Your task to perform on an android device: Open the Play Movies app and select the watchlist tab. Image 0: 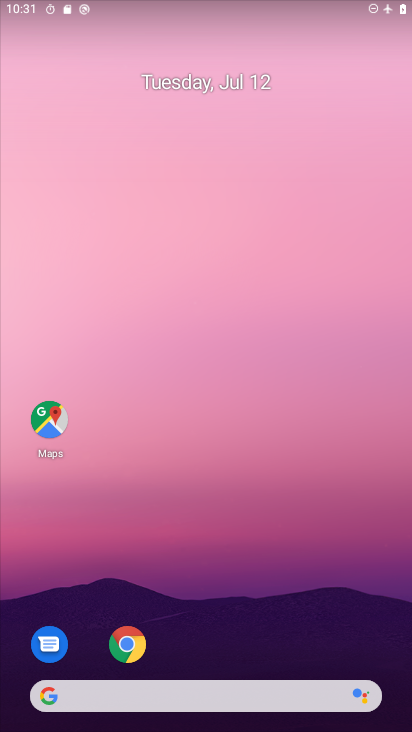
Step 0: drag from (183, 639) to (183, 230)
Your task to perform on an android device: Open the Play Movies app and select the watchlist tab. Image 1: 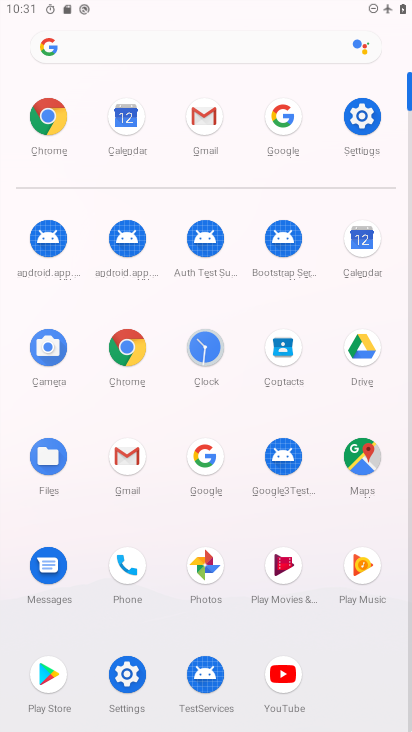
Step 1: click (284, 555)
Your task to perform on an android device: Open the Play Movies app and select the watchlist tab. Image 2: 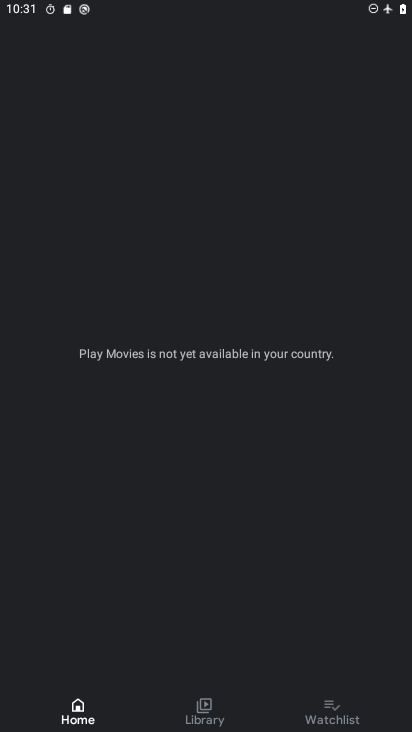
Step 2: click (310, 701)
Your task to perform on an android device: Open the Play Movies app and select the watchlist tab. Image 3: 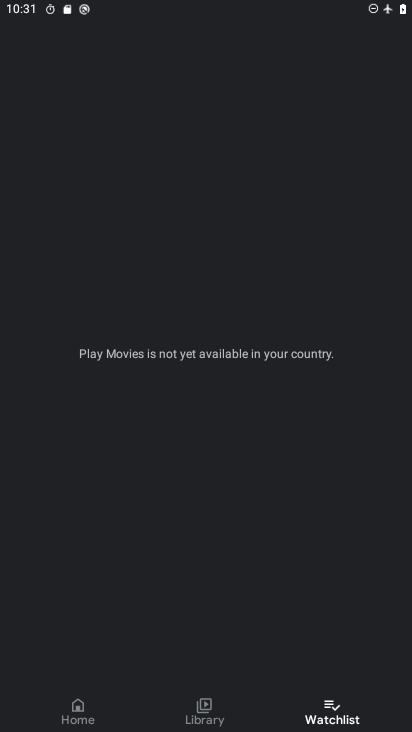
Step 3: task complete